Your task to perform on an android device: set the stopwatch Image 0: 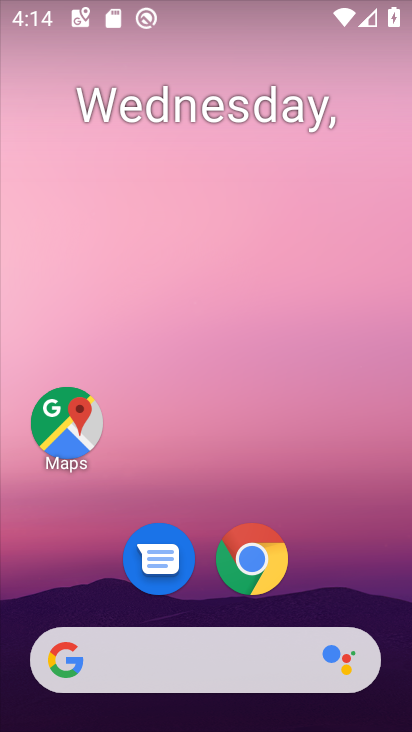
Step 0: drag from (340, 599) to (265, 161)
Your task to perform on an android device: set the stopwatch Image 1: 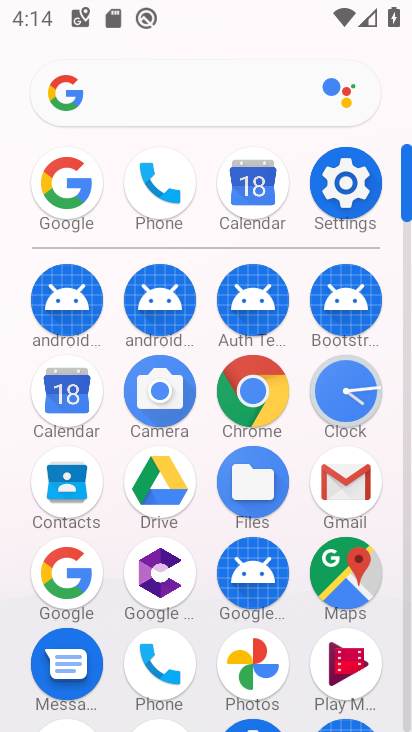
Step 1: click (359, 399)
Your task to perform on an android device: set the stopwatch Image 2: 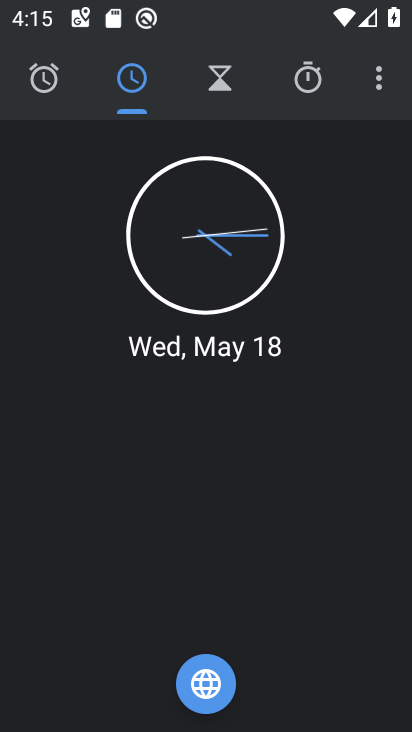
Step 2: click (302, 88)
Your task to perform on an android device: set the stopwatch Image 3: 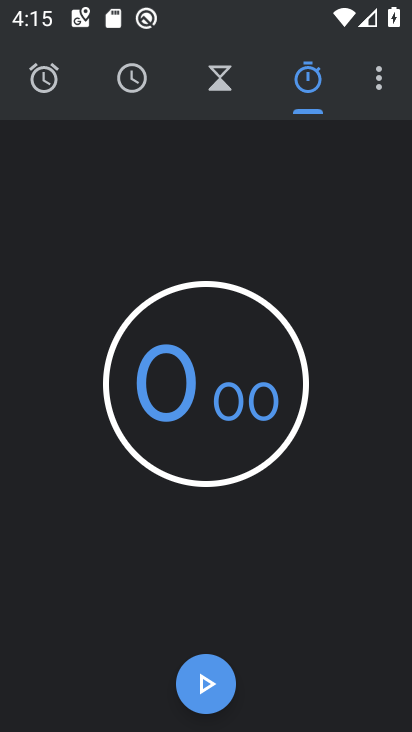
Step 3: click (211, 677)
Your task to perform on an android device: set the stopwatch Image 4: 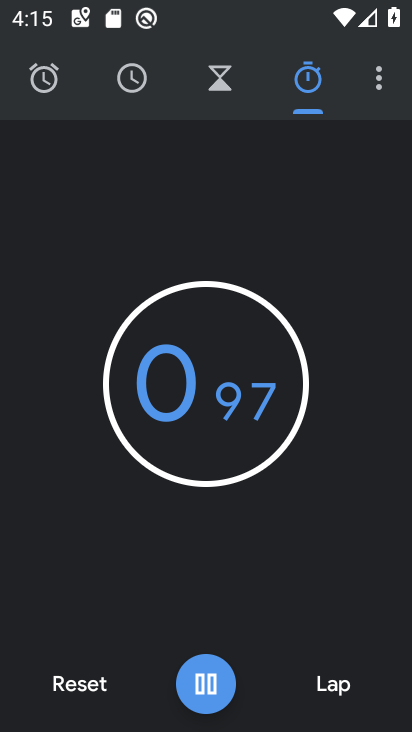
Step 4: task complete